Your task to perform on an android device: check data usage Image 0: 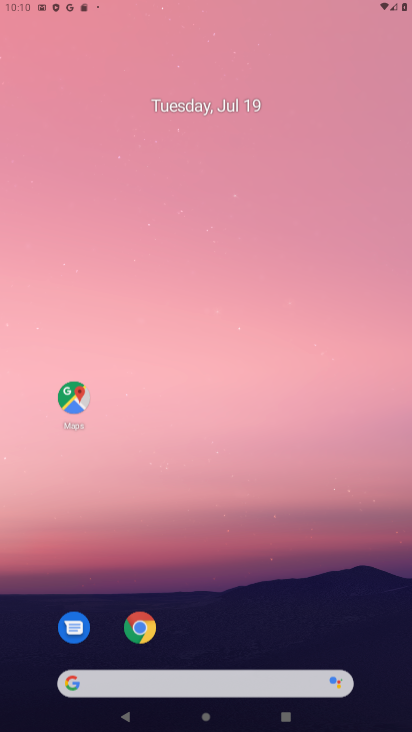
Step 0: click (272, 216)
Your task to perform on an android device: check data usage Image 1: 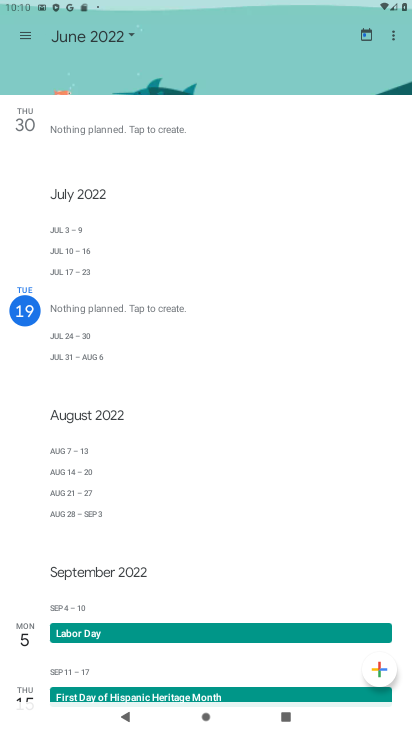
Step 1: press home button
Your task to perform on an android device: check data usage Image 2: 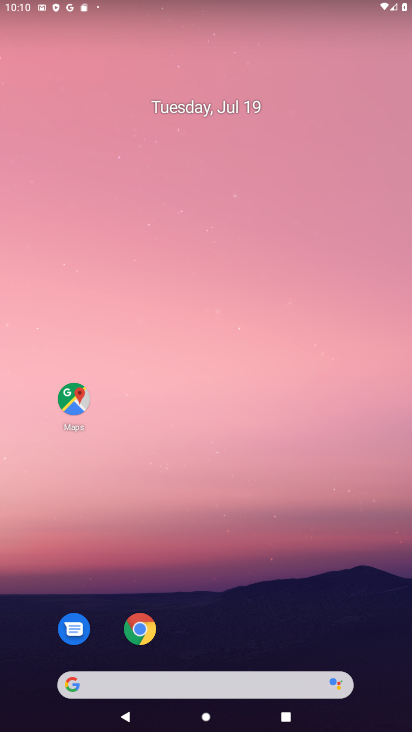
Step 2: drag from (263, 640) to (308, 182)
Your task to perform on an android device: check data usage Image 3: 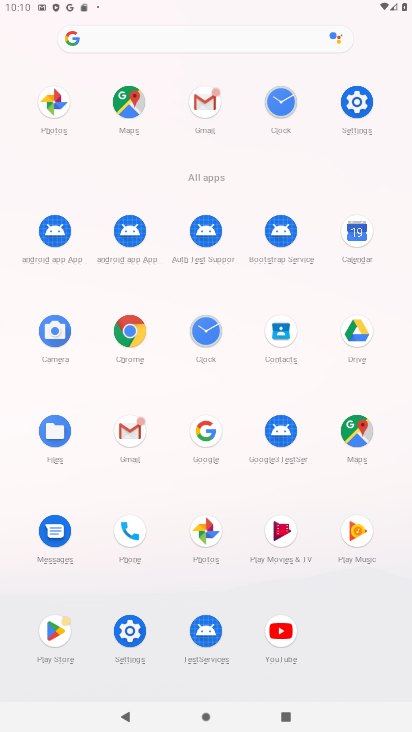
Step 3: click (132, 625)
Your task to perform on an android device: check data usage Image 4: 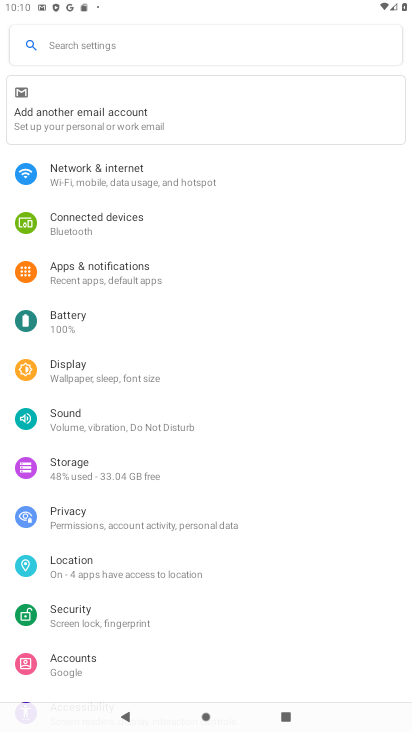
Step 4: click (160, 183)
Your task to perform on an android device: check data usage Image 5: 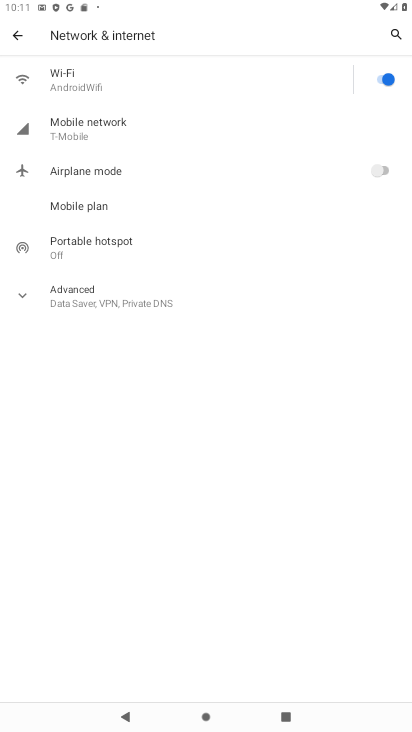
Step 5: click (159, 134)
Your task to perform on an android device: check data usage Image 6: 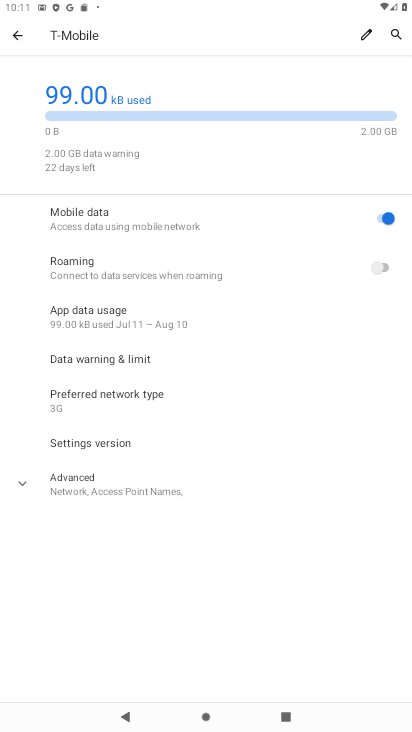
Step 6: click (165, 321)
Your task to perform on an android device: check data usage Image 7: 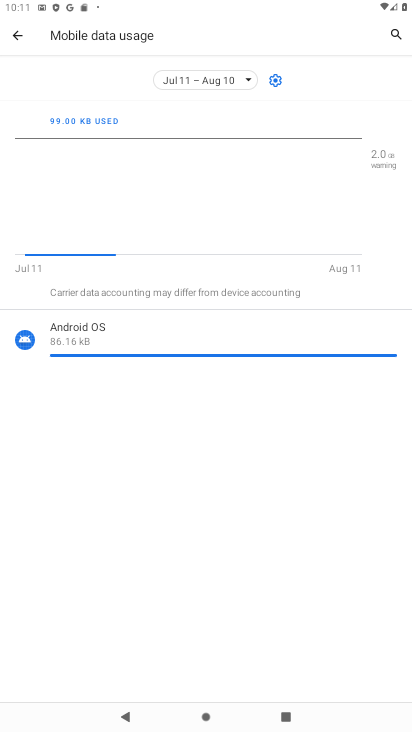
Step 7: task complete